Your task to perform on an android device: manage bookmarks in the chrome app Image 0: 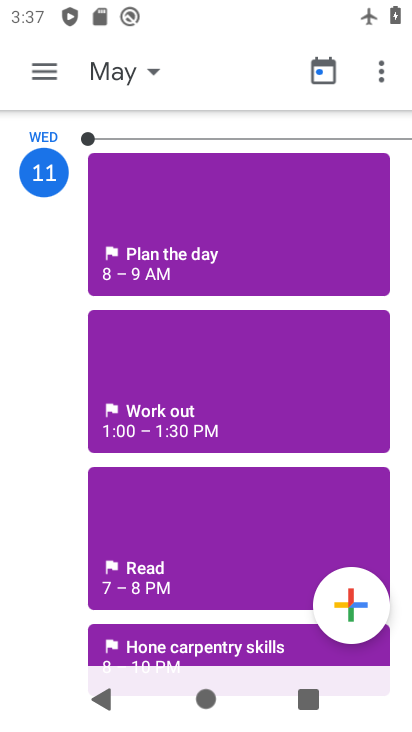
Step 0: press home button
Your task to perform on an android device: manage bookmarks in the chrome app Image 1: 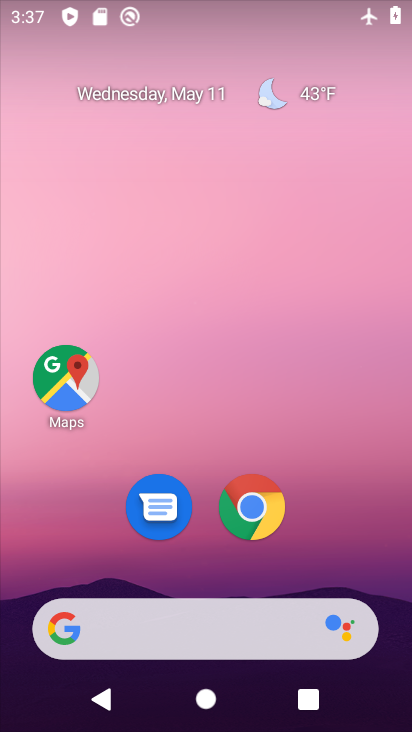
Step 1: click (255, 506)
Your task to perform on an android device: manage bookmarks in the chrome app Image 2: 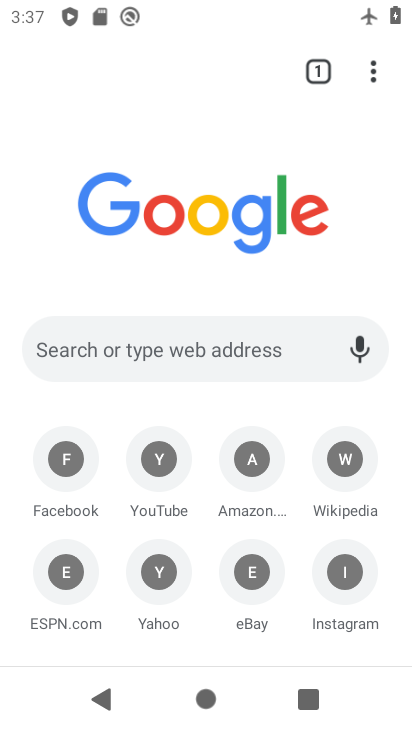
Step 2: click (371, 80)
Your task to perform on an android device: manage bookmarks in the chrome app Image 3: 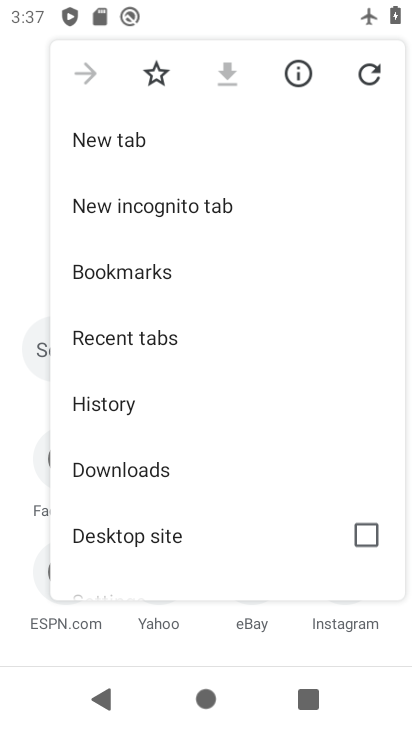
Step 3: click (130, 274)
Your task to perform on an android device: manage bookmarks in the chrome app Image 4: 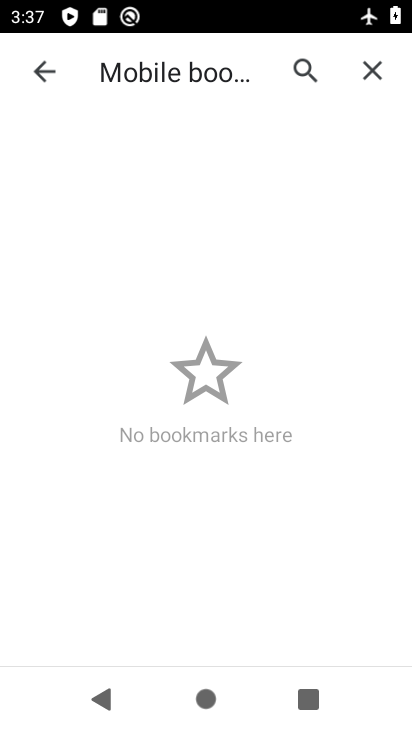
Step 4: task complete